Your task to perform on an android device: Open Youtube and go to the subscriptions tab Image 0: 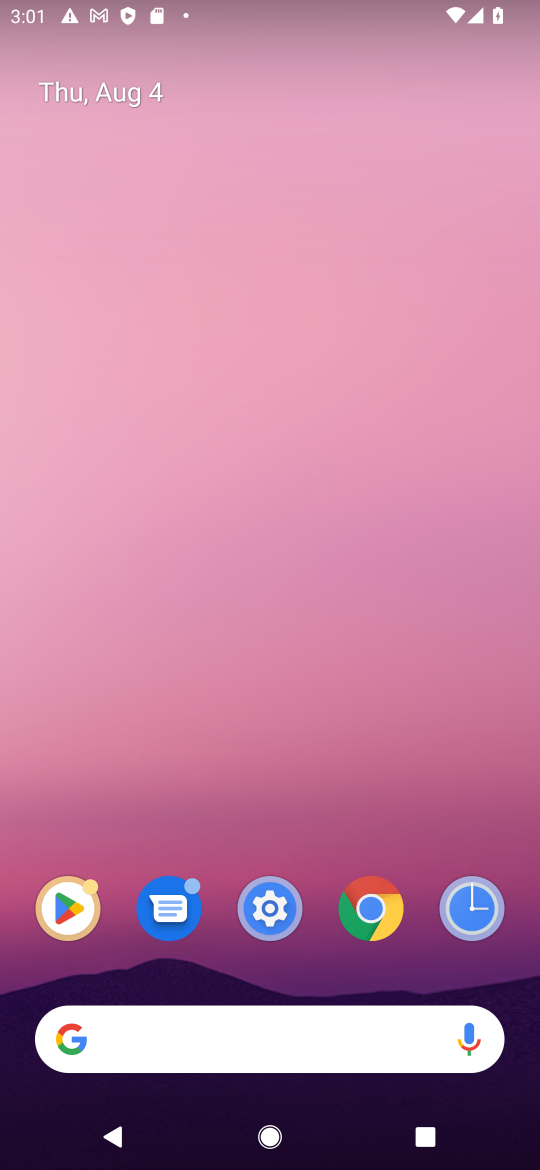
Step 0: drag from (251, 918) to (280, 186)
Your task to perform on an android device: Open Youtube and go to the subscriptions tab Image 1: 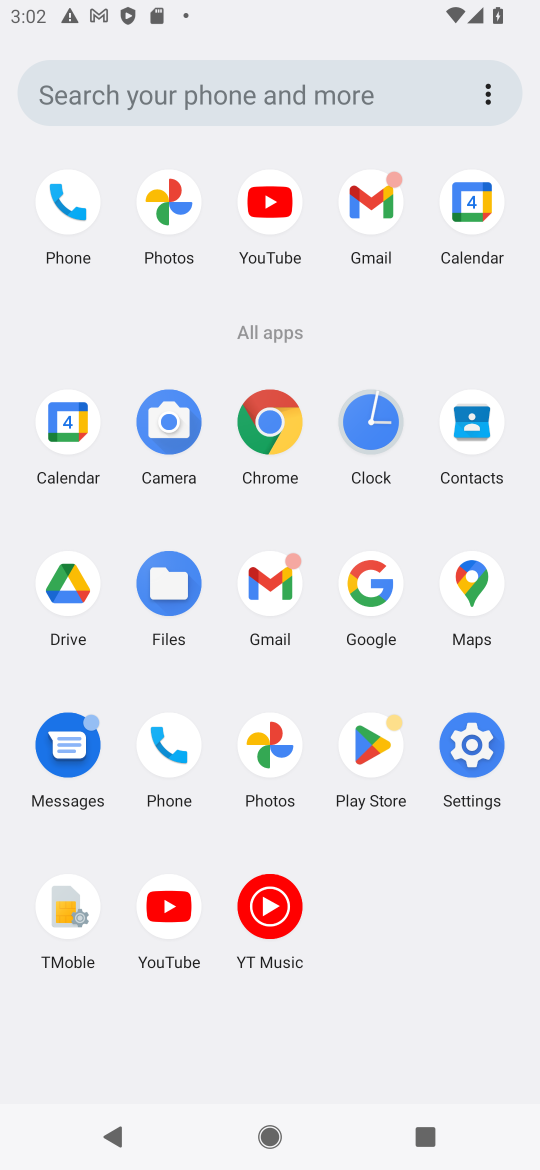
Step 1: click (267, 218)
Your task to perform on an android device: Open Youtube and go to the subscriptions tab Image 2: 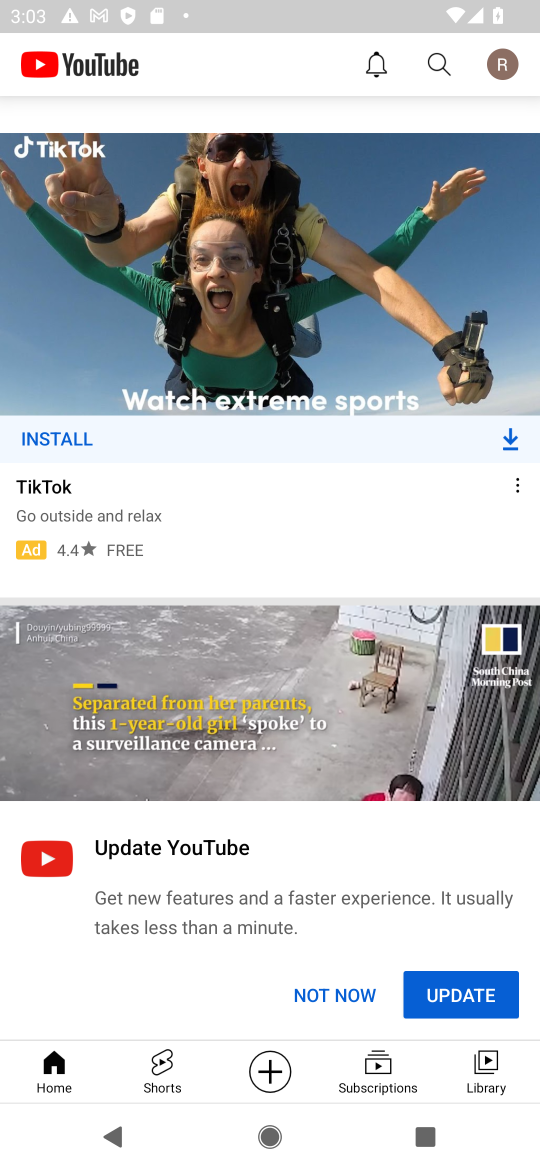
Step 2: click (392, 1074)
Your task to perform on an android device: Open Youtube and go to the subscriptions tab Image 3: 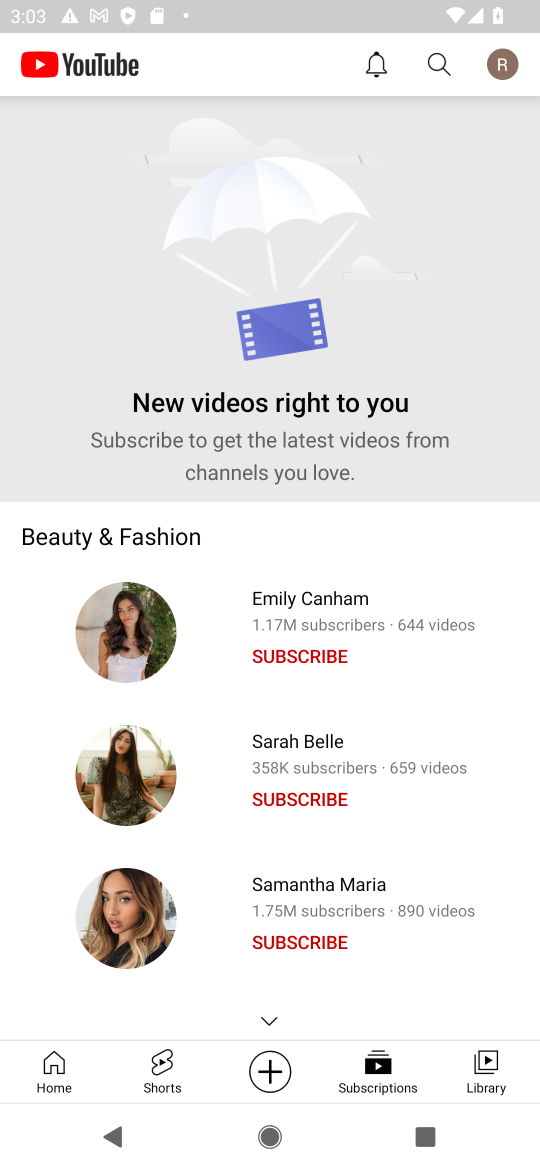
Step 3: task complete